Your task to perform on an android device: turn smart compose on in the gmail app Image 0: 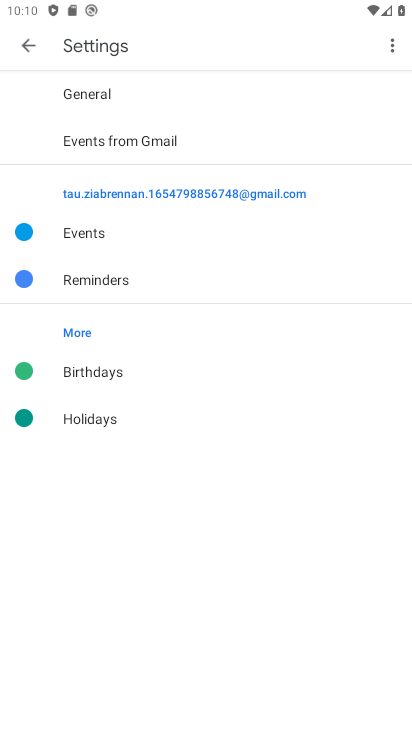
Step 0: press home button
Your task to perform on an android device: turn smart compose on in the gmail app Image 1: 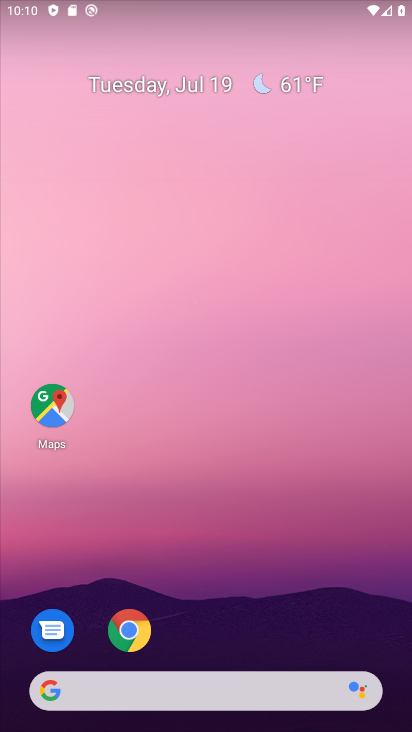
Step 1: drag from (318, 644) to (280, 242)
Your task to perform on an android device: turn smart compose on in the gmail app Image 2: 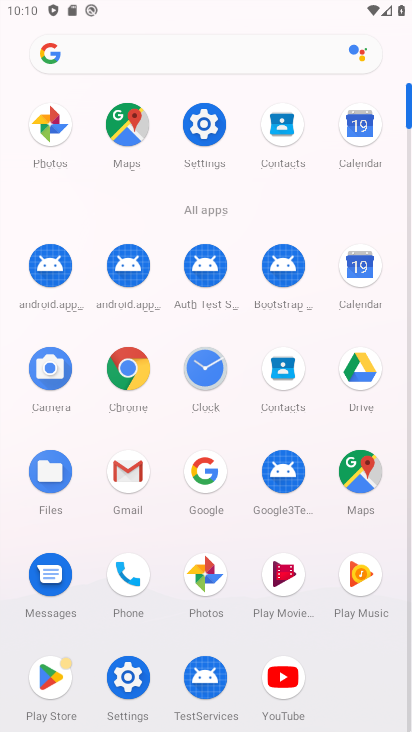
Step 2: click (124, 469)
Your task to perform on an android device: turn smart compose on in the gmail app Image 3: 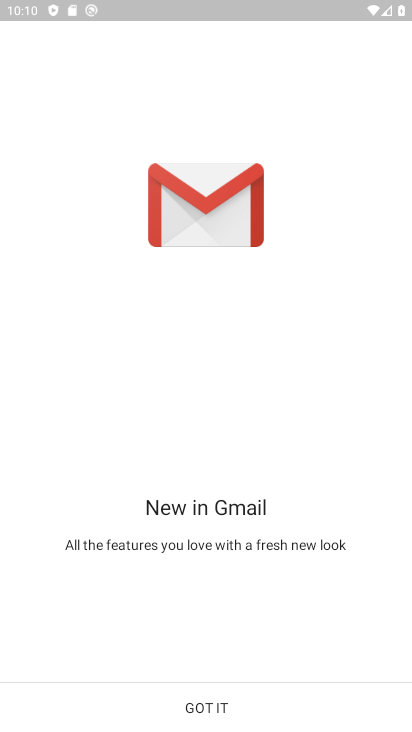
Step 3: click (193, 708)
Your task to perform on an android device: turn smart compose on in the gmail app Image 4: 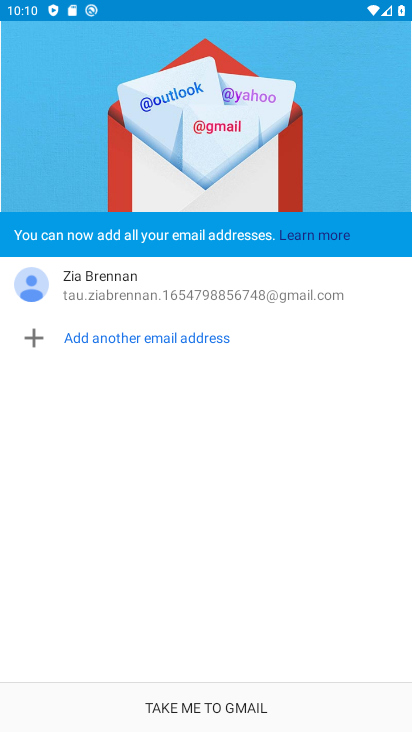
Step 4: click (193, 708)
Your task to perform on an android device: turn smart compose on in the gmail app Image 5: 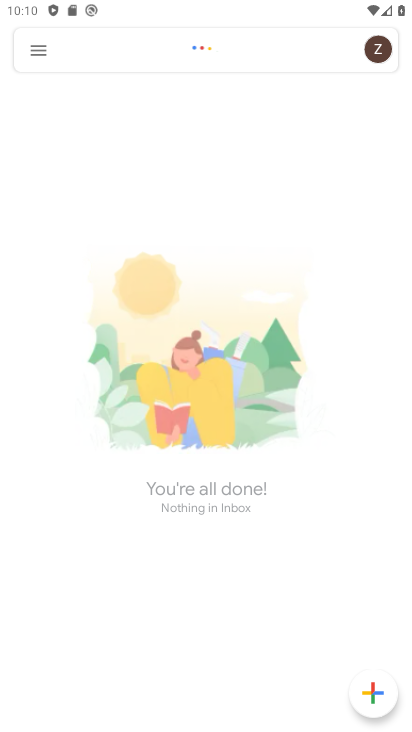
Step 5: click (39, 48)
Your task to perform on an android device: turn smart compose on in the gmail app Image 6: 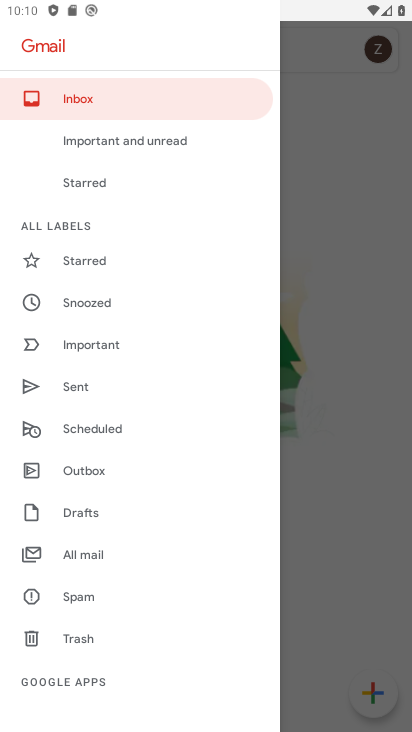
Step 6: drag from (122, 681) to (121, 342)
Your task to perform on an android device: turn smart compose on in the gmail app Image 7: 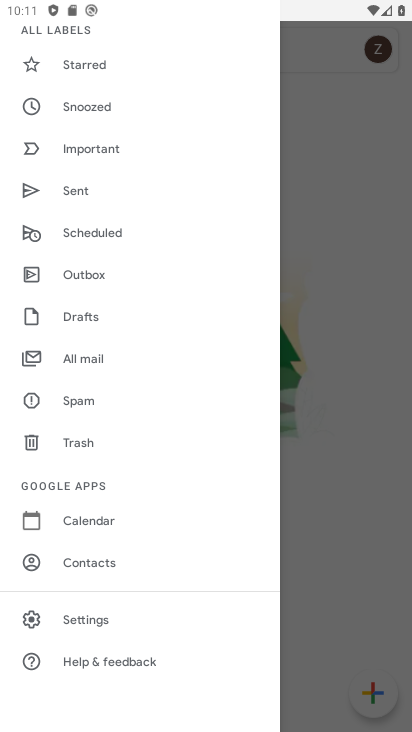
Step 7: click (87, 618)
Your task to perform on an android device: turn smart compose on in the gmail app Image 8: 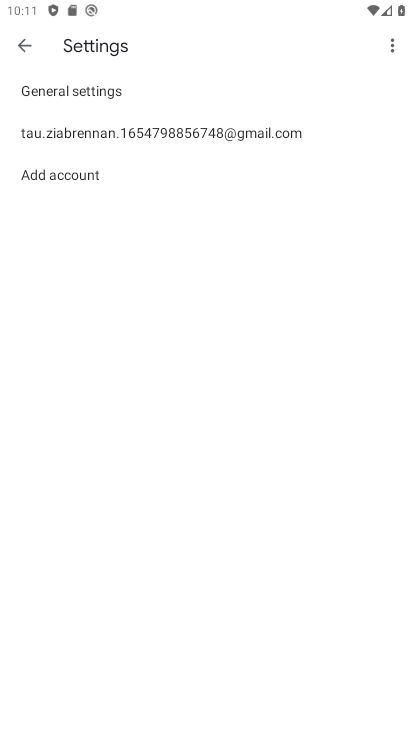
Step 8: click (142, 138)
Your task to perform on an android device: turn smart compose on in the gmail app Image 9: 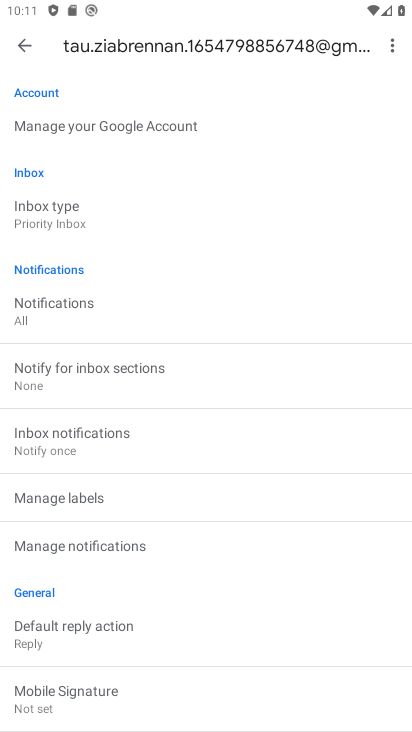
Step 9: task complete